Your task to perform on an android device: Show me popular videos on Youtube Image 0: 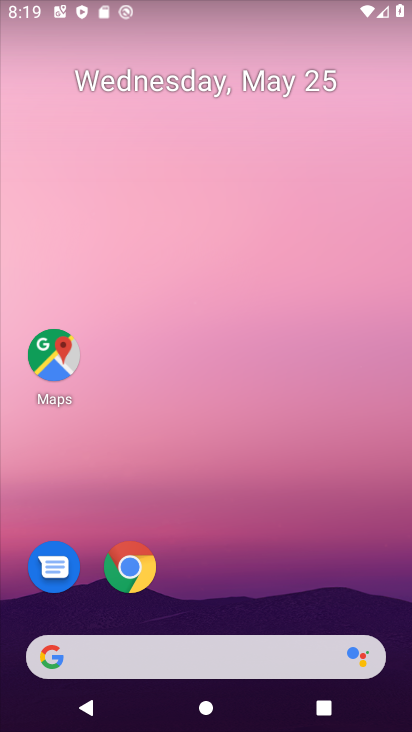
Step 0: drag from (264, 504) to (331, 0)
Your task to perform on an android device: Show me popular videos on Youtube Image 1: 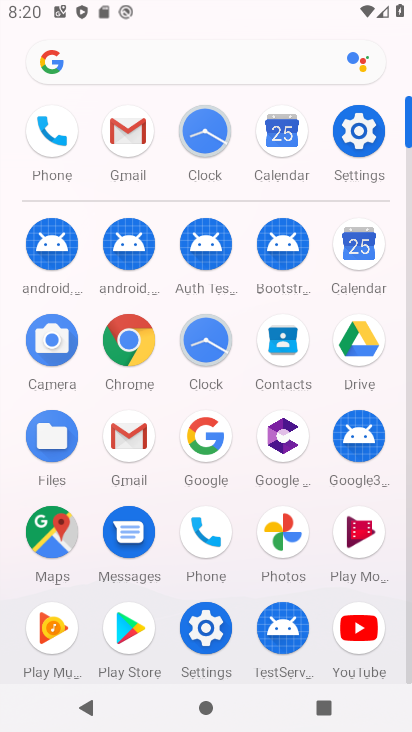
Step 1: click (371, 613)
Your task to perform on an android device: Show me popular videos on Youtube Image 2: 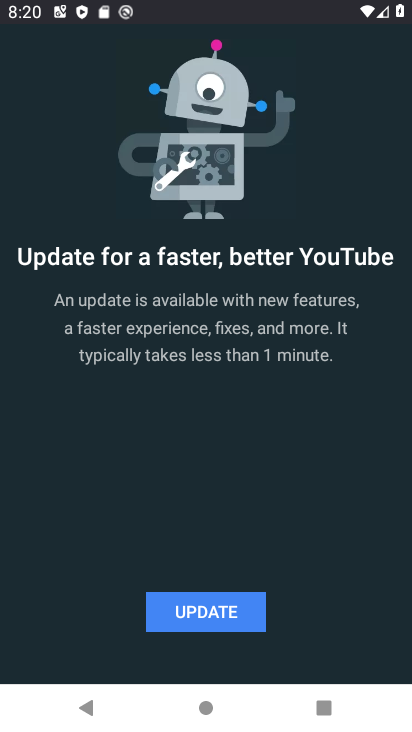
Step 2: click (210, 619)
Your task to perform on an android device: Show me popular videos on Youtube Image 3: 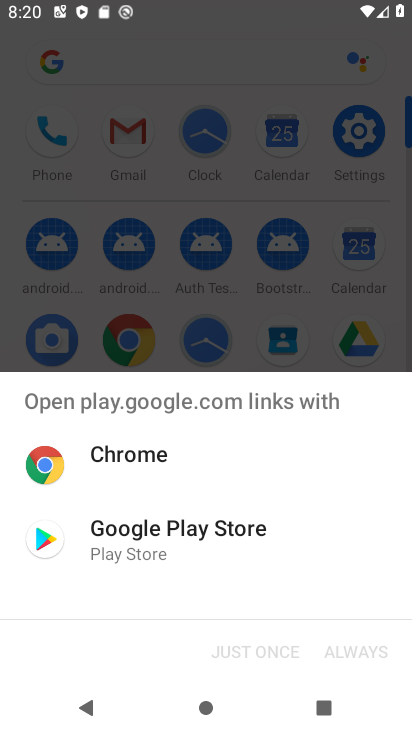
Step 3: click (169, 521)
Your task to perform on an android device: Show me popular videos on Youtube Image 4: 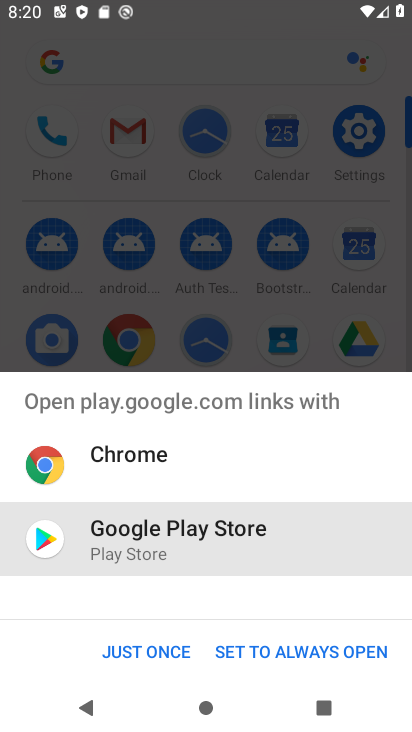
Step 4: click (154, 650)
Your task to perform on an android device: Show me popular videos on Youtube Image 5: 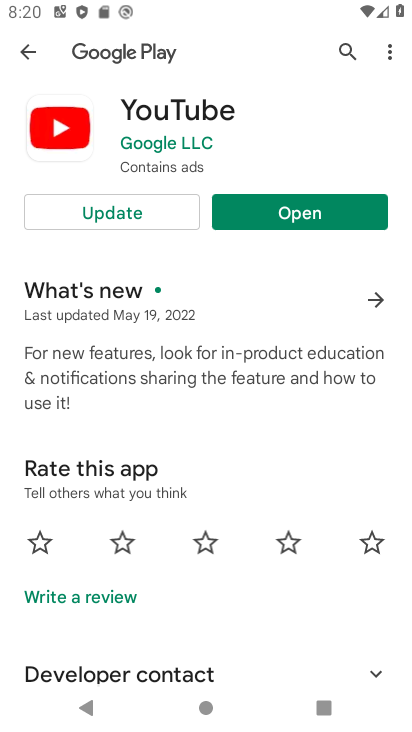
Step 5: click (98, 203)
Your task to perform on an android device: Show me popular videos on Youtube Image 6: 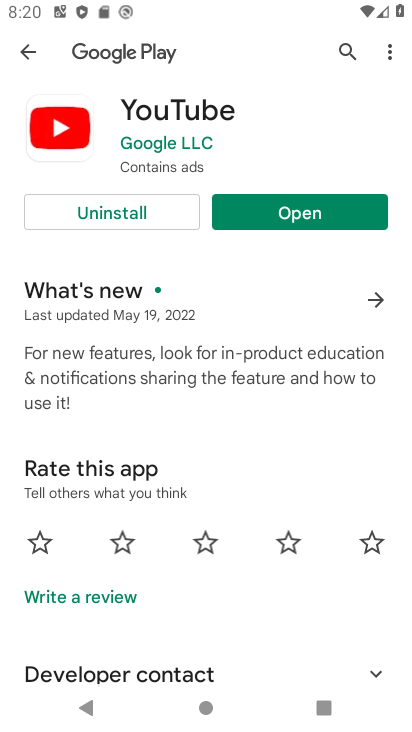
Step 6: click (328, 214)
Your task to perform on an android device: Show me popular videos on Youtube Image 7: 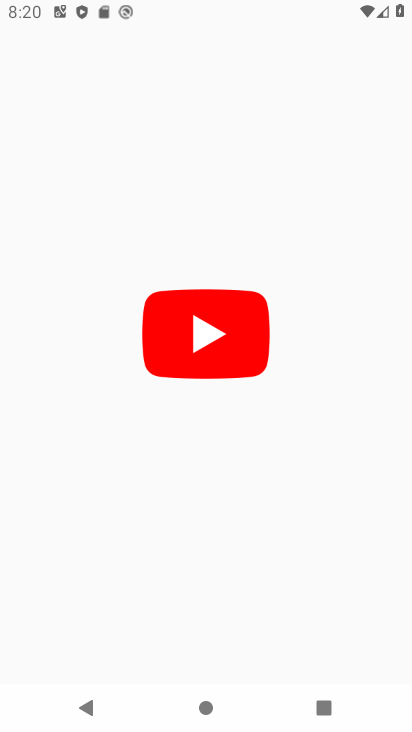
Step 7: task complete